Your task to perform on an android device: Turn off notifications for the Google Maps app Image 0: 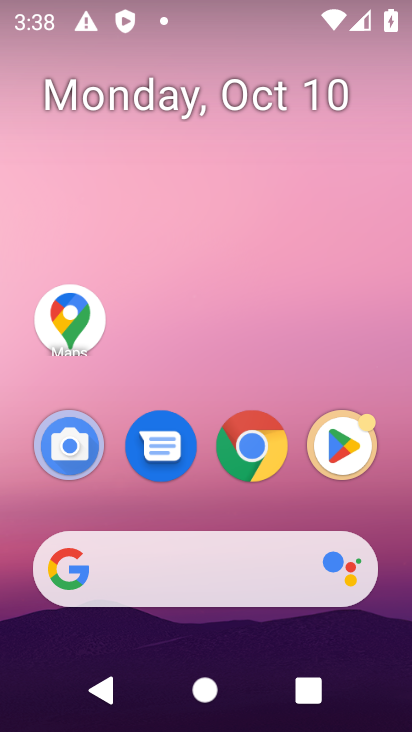
Step 0: click (206, 487)
Your task to perform on an android device: Turn off notifications for the Google Maps app Image 1: 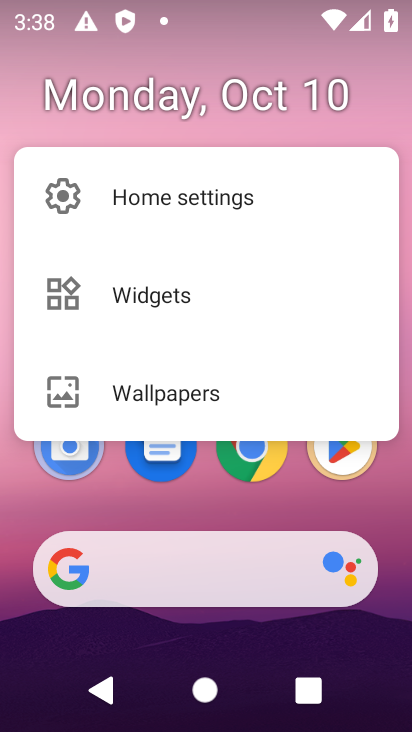
Step 1: click (202, 473)
Your task to perform on an android device: Turn off notifications for the Google Maps app Image 2: 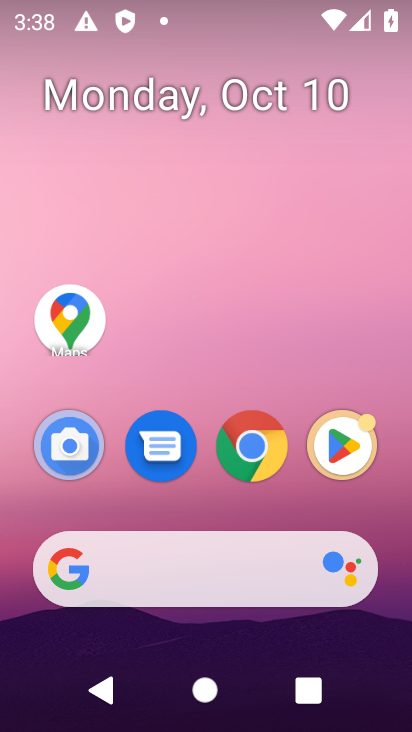
Step 2: click (65, 340)
Your task to perform on an android device: Turn off notifications for the Google Maps app Image 3: 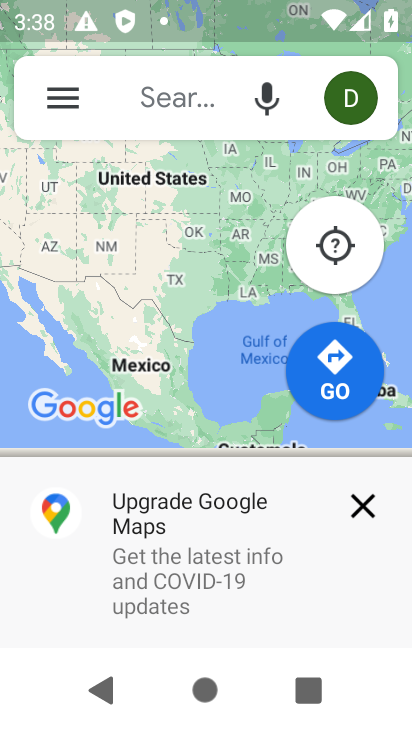
Step 3: click (50, 100)
Your task to perform on an android device: Turn off notifications for the Google Maps app Image 4: 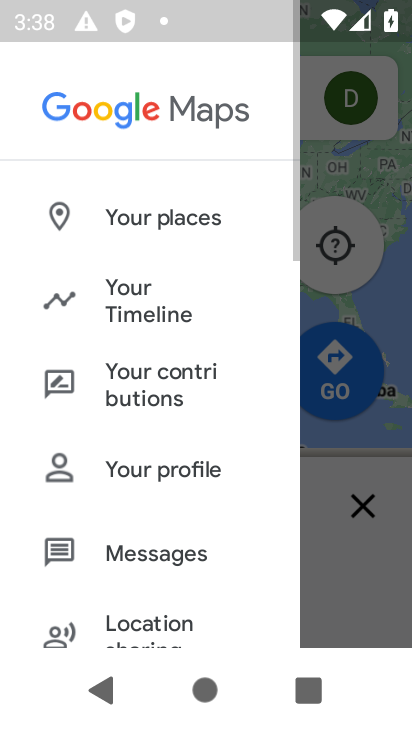
Step 4: drag from (127, 607) to (145, 253)
Your task to perform on an android device: Turn off notifications for the Google Maps app Image 5: 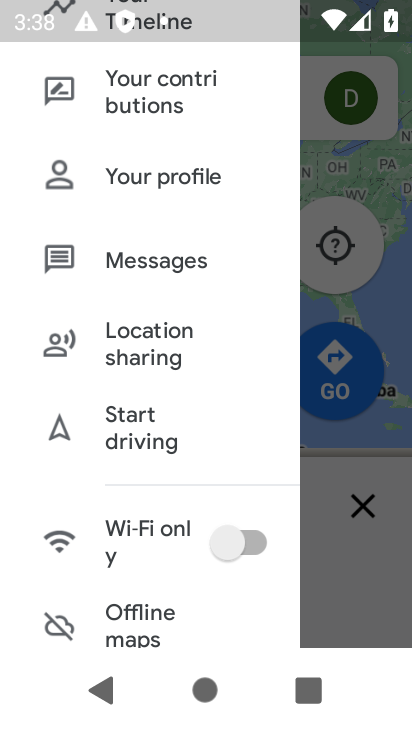
Step 5: drag from (146, 597) to (142, 197)
Your task to perform on an android device: Turn off notifications for the Google Maps app Image 6: 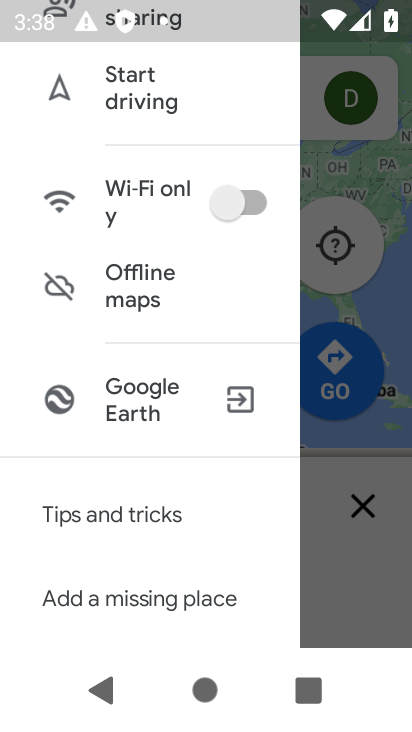
Step 6: drag from (152, 540) to (155, 248)
Your task to perform on an android device: Turn off notifications for the Google Maps app Image 7: 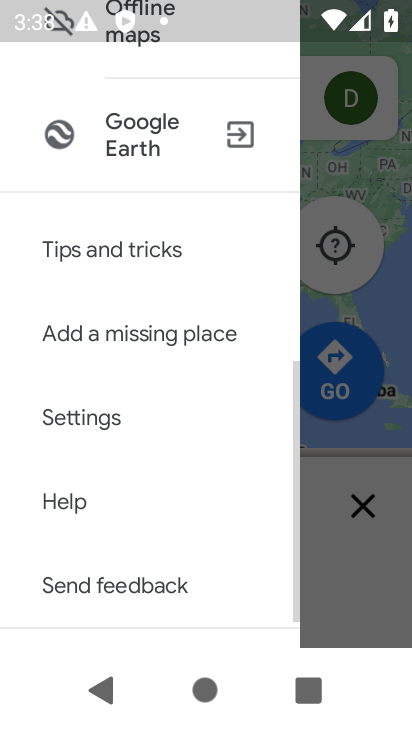
Step 7: drag from (150, 258) to (145, 338)
Your task to perform on an android device: Turn off notifications for the Google Maps app Image 8: 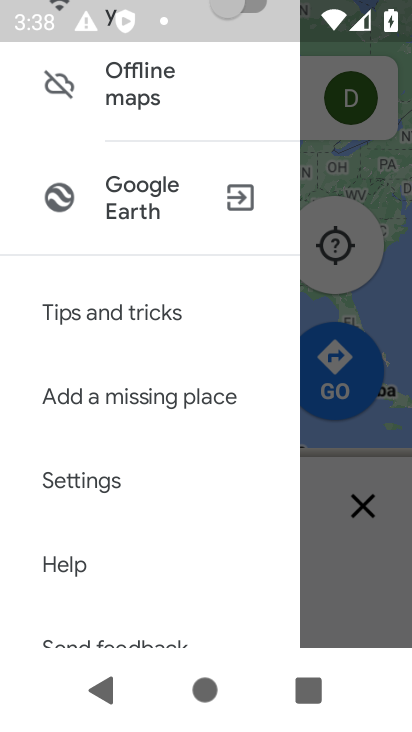
Step 8: click (124, 474)
Your task to perform on an android device: Turn off notifications for the Google Maps app Image 9: 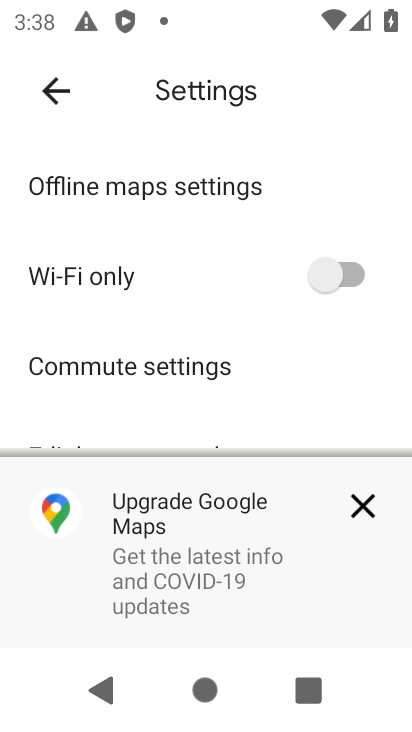
Step 9: click (358, 493)
Your task to perform on an android device: Turn off notifications for the Google Maps app Image 10: 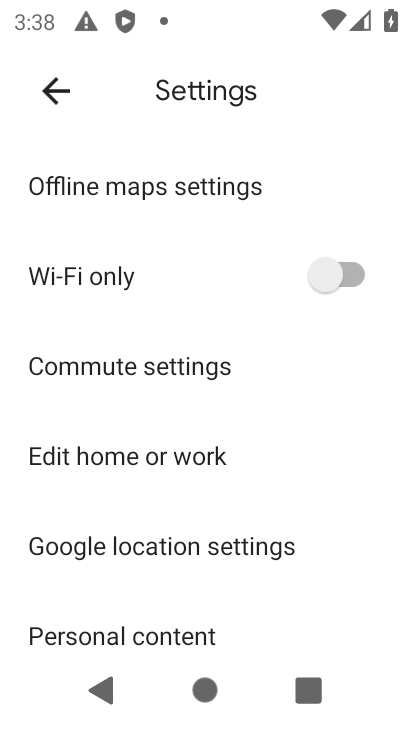
Step 10: drag from (154, 533) to (175, 231)
Your task to perform on an android device: Turn off notifications for the Google Maps app Image 11: 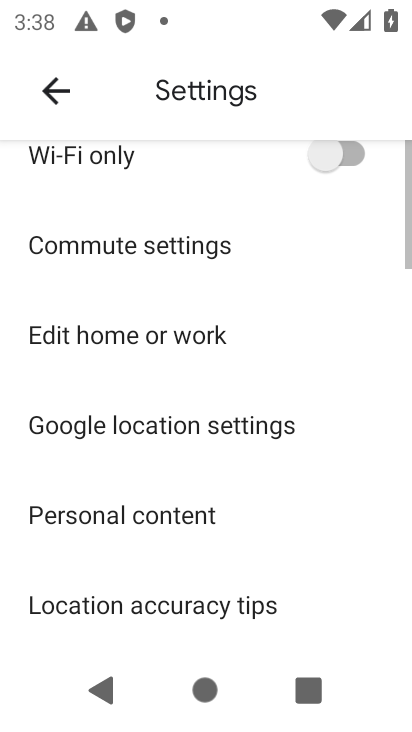
Step 11: drag from (176, 526) to (219, 273)
Your task to perform on an android device: Turn off notifications for the Google Maps app Image 12: 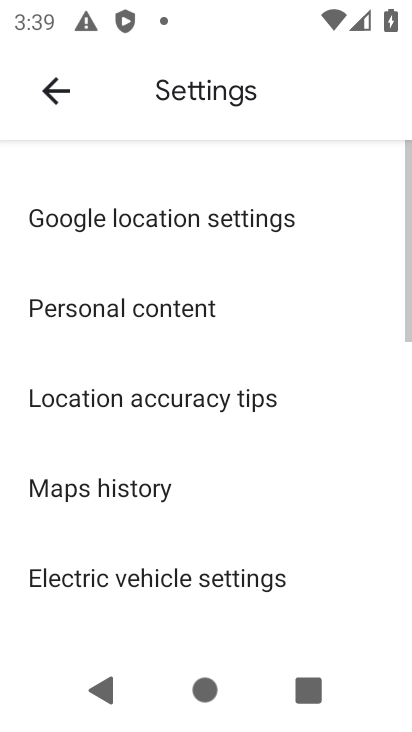
Step 12: drag from (183, 508) to (192, 343)
Your task to perform on an android device: Turn off notifications for the Google Maps app Image 13: 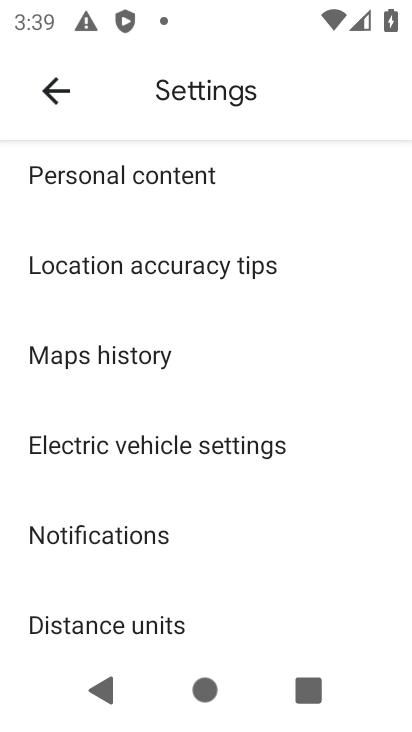
Step 13: click (194, 528)
Your task to perform on an android device: Turn off notifications for the Google Maps app Image 14: 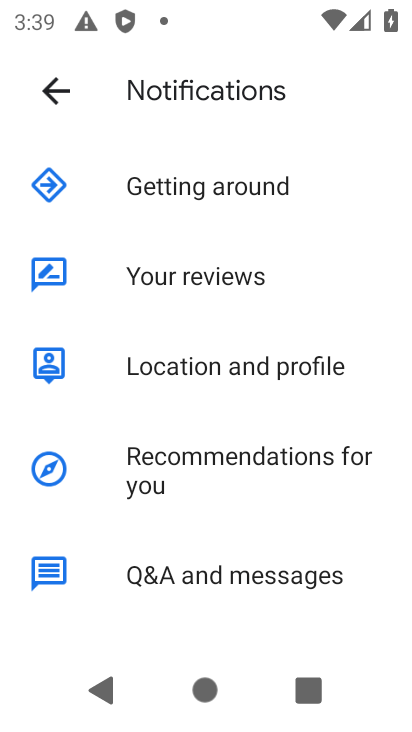
Step 14: drag from (226, 530) to (264, 291)
Your task to perform on an android device: Turn off notifications for the Google Maps app Image 15: 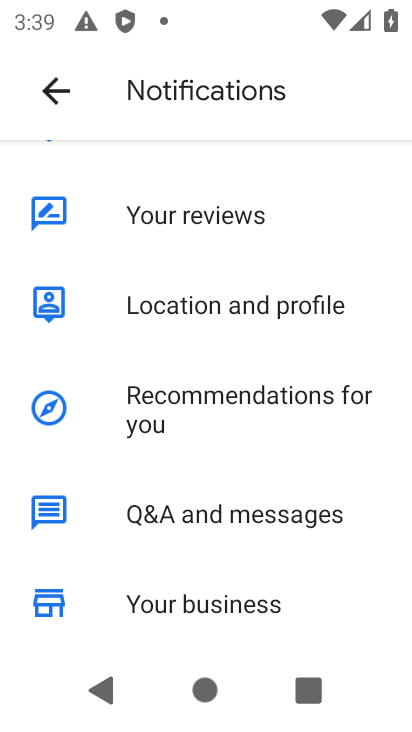
Step 15: drag from (235, 490) to (238, 275)
Your task to perform on an android device: Turn off notifications for the Google Maps app Image 16: 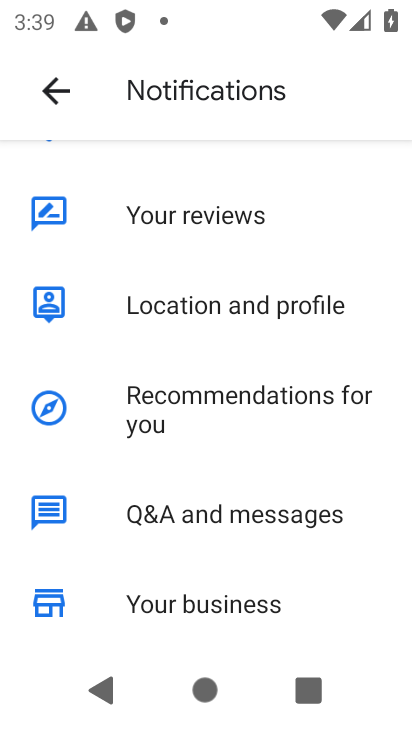
Step 16: drag from (241, 277) to (239, 572)
Your task to perform on an android device: Turn off notifications for the Google Maps app Image 17: 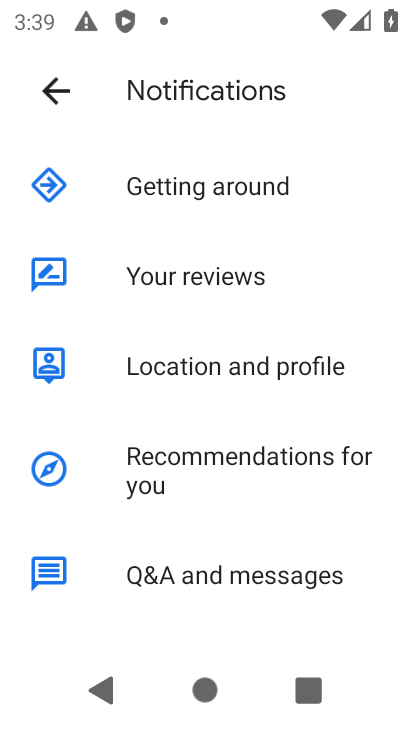
Step 17: click (263, 192)
Your task to perform on an android device: Turn off notifications for the Google Maps app Image 18: 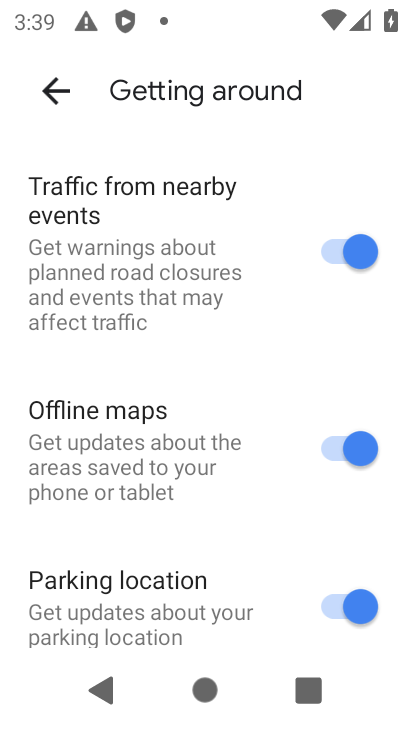
Step 18: drag from (257, 518) to (291, 269)
Your task to perform on an android device: Turn off notifications for the Google Maps app Image 19: 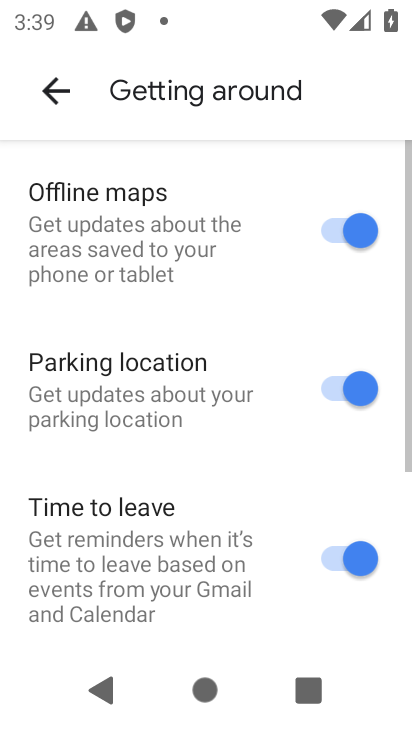
Step 19: drag from (238, 527) to (277, 273)
Your task to perform on an android device: Turn off notifications for the Google Maps app Image 20: 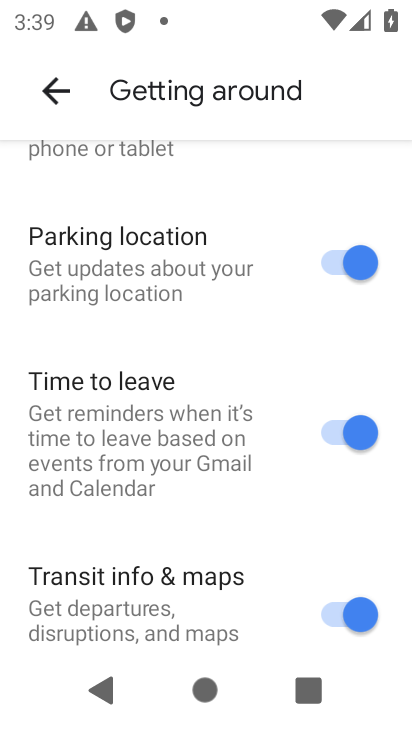
Step 20: drag from (255, 508) to (254, 375)
Your task to perform on an android device: Turn off notifications for the Google Maps app Image 21: 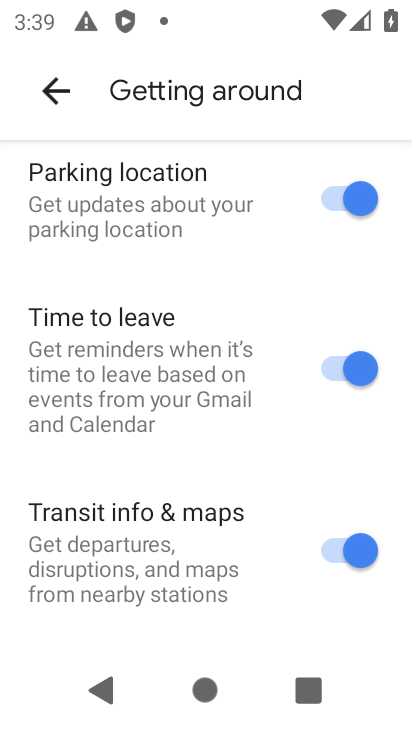
Step 21: click (344, 359)
Your task to perform on an android device: Turn off notifications for the Google Maps app Image 22: 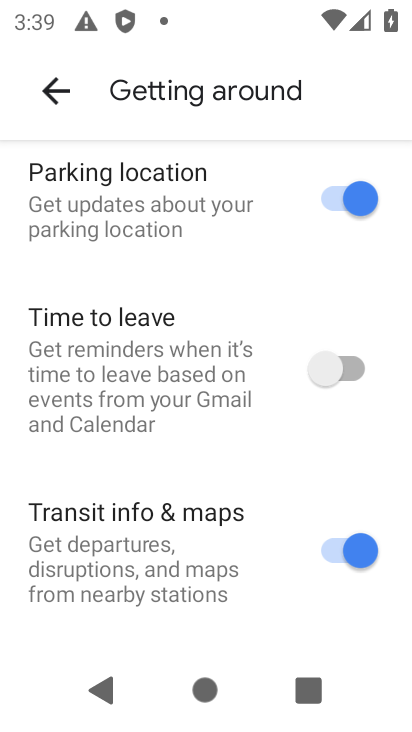
Step 22: task complete